Your task to perform on an android device: make emails show in primary in the gmail app Image 0: 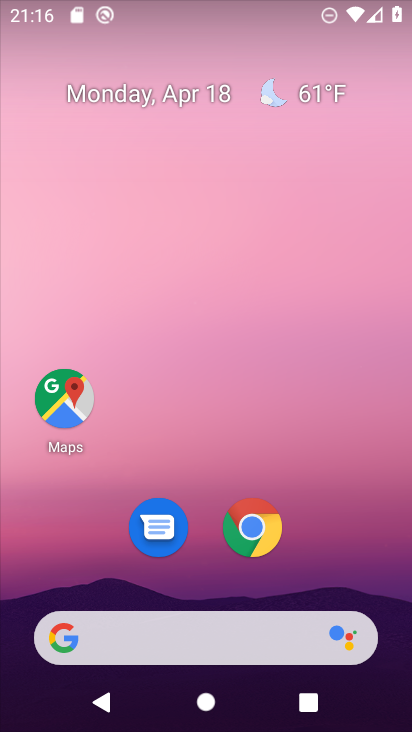
Step 0: drag from (179, 482) to (237, 73)
Your task to perform on an android device: make emails show in primary in the gmail app Image 1: 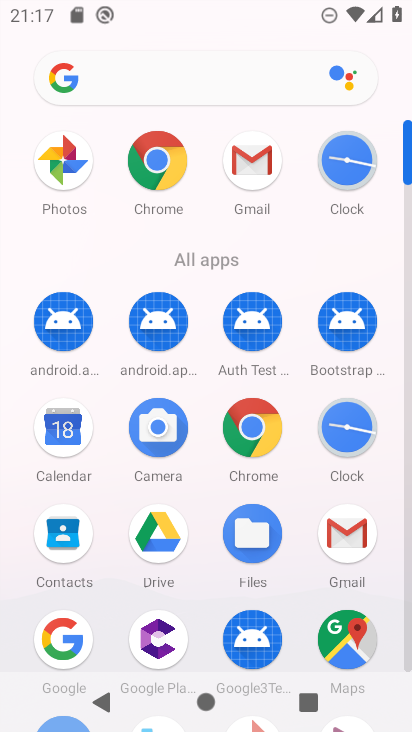
Step 1: click (263, 157)
Your task to perform on an android device: make emails show in primary in the gmail app Image 2: 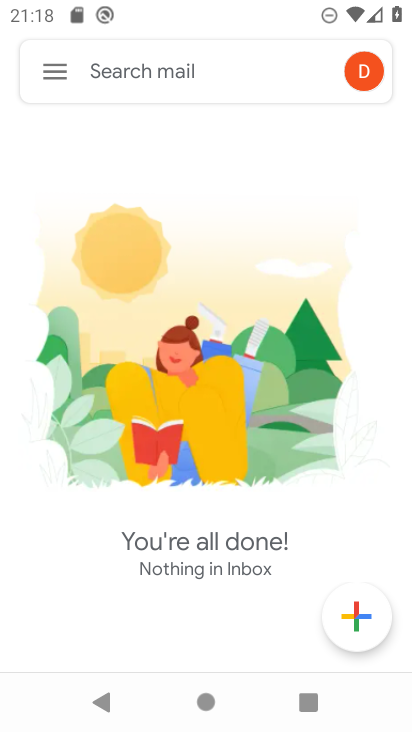
Step 2: task complete